Your task to perform on an android device: Search for pizza restaurants on Maps Image 0: 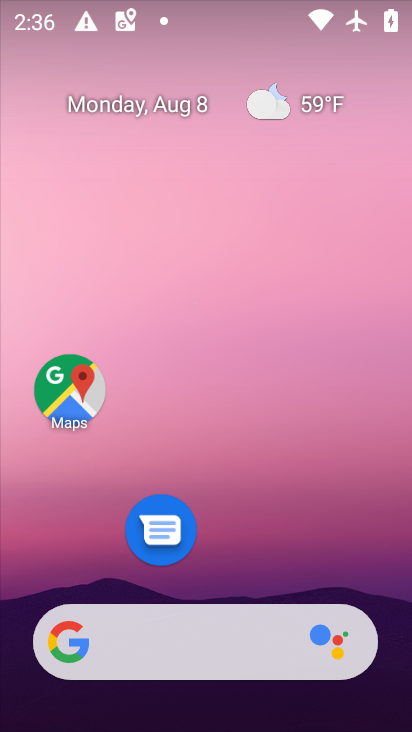
Step 0: drag from (249, 589) to (242, 115)
Your task to perform on an android device: Search for pizza restaurants on Maps Image 1: 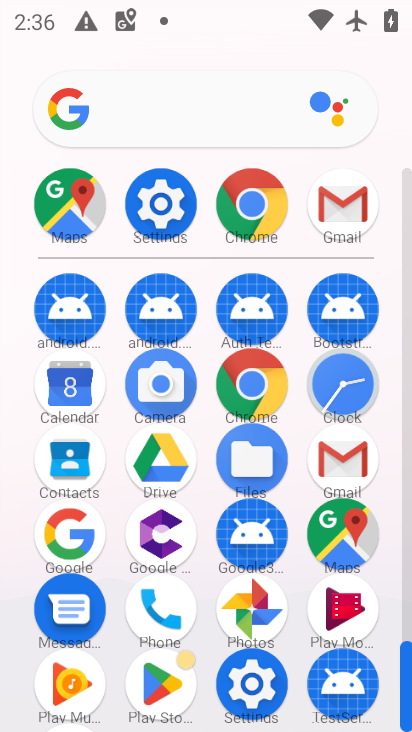
Step 1: click (351, 527)
Your task to perform on an android device: Search for pizza restaurants on Maps Image 2: 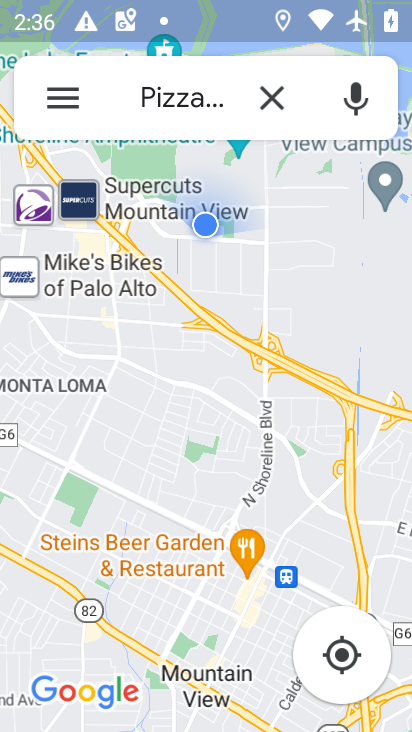
Step 2: task complete